Your task to perform on an android device: star an email in the gmail app Image 0: 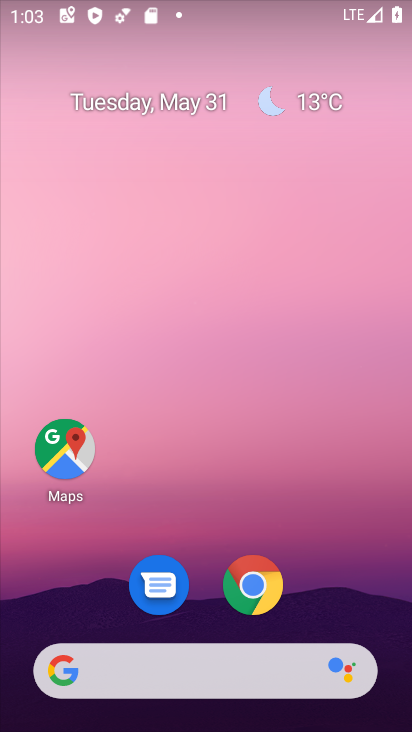
Step 0: drag from (278, 510) to (160, 35)
Your task to perform on an android device: star an email in the gmail app Image 1: 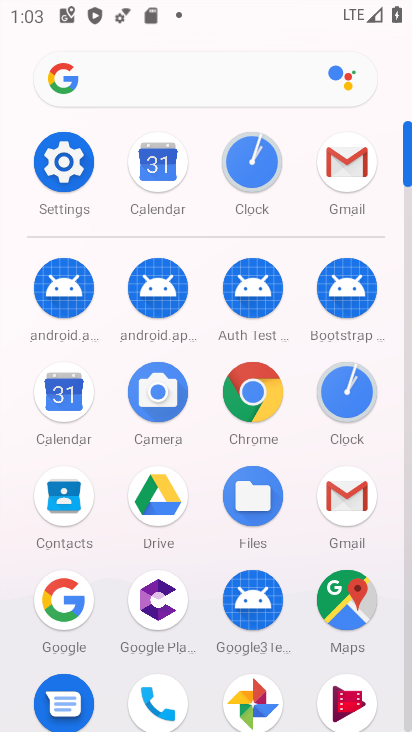
Step 1: click (342, 177)
Your task to perform on an android device: star an email in the gmail app Image 2: 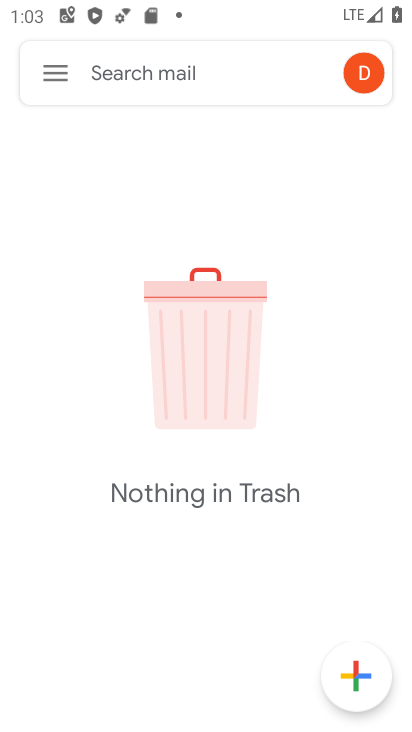
Step 2: click (54, 73)
Your task to perform on an android device: star an email in the gmail app Image 3: 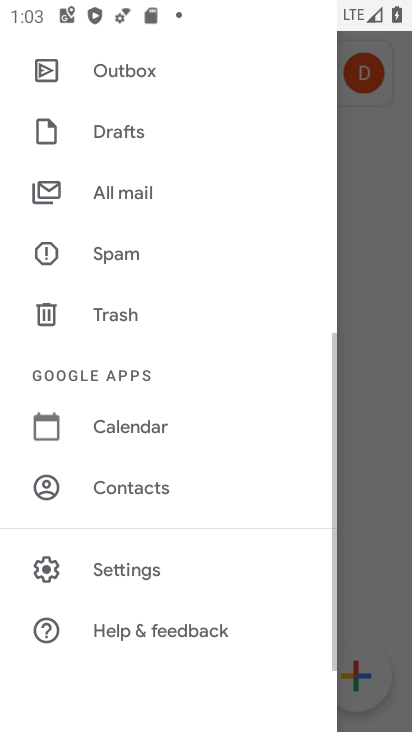
Step 3: click (126, 182)
Your task to perform on an android device: star an email in the gmail app Image 4: 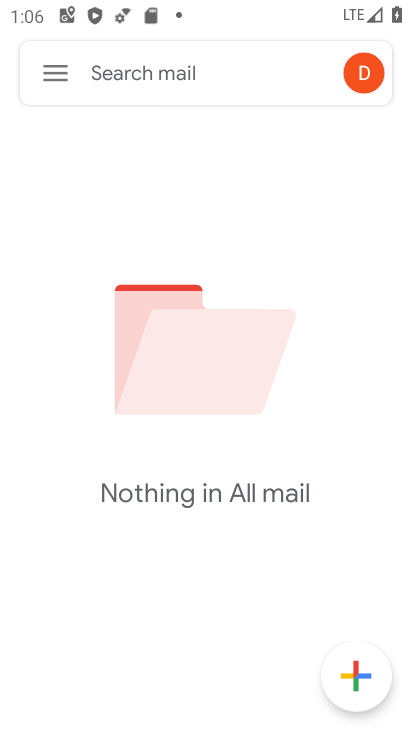
Step 4: task complete